Your task to perform on an android device: Show me popular videos on Youtube Image 0: 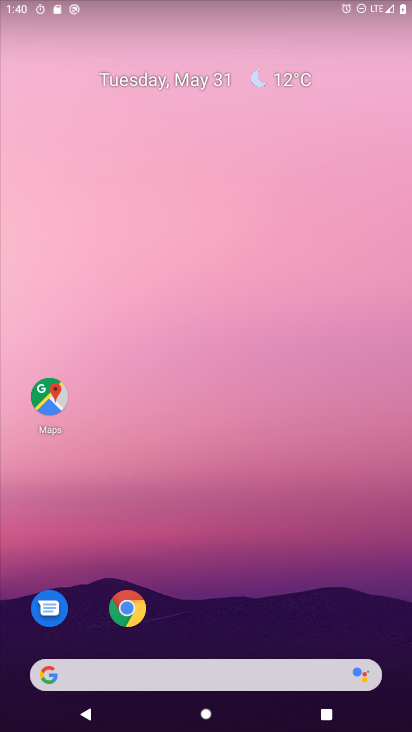
Step 0: drag from (312, 644) to (295, 2)
Your task to perform on an android device: Show me popular videos on Youtube Image 1: 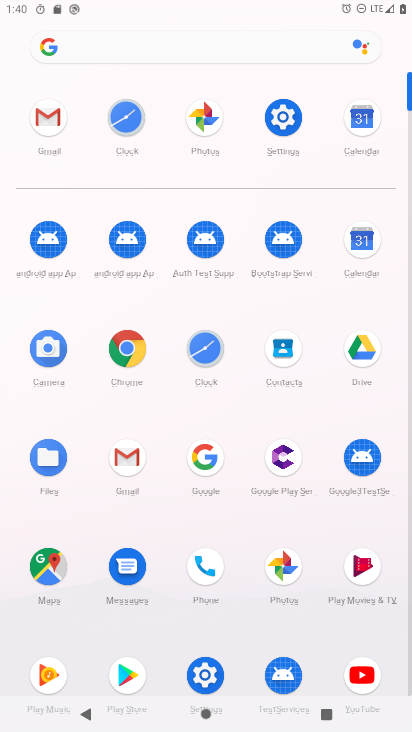
Step 1: click (362, 670)
Your task to perform on an android device: Show me popular videos on Youtube Image 2: 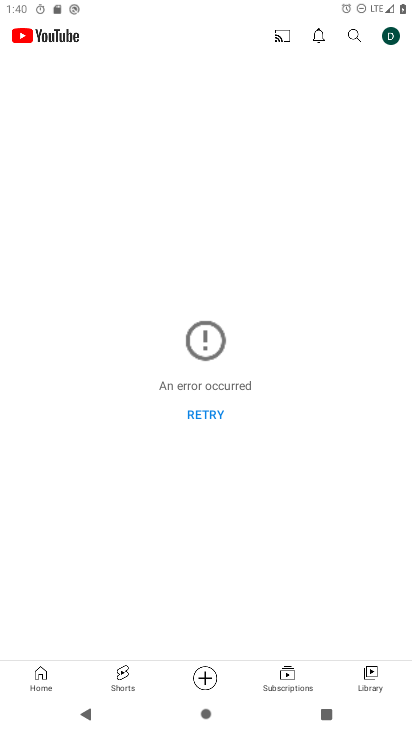
Step 2: click (197, 417)
Your task to perform on an android device: Show me popular videos on Youtube Image 3: 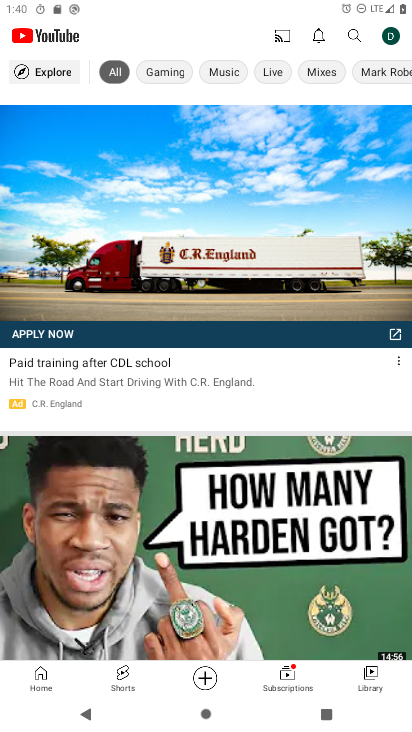
Step 3: click (32, 684)
Your task to perform on an android device: Show me popular videos on Youtube Image 4: 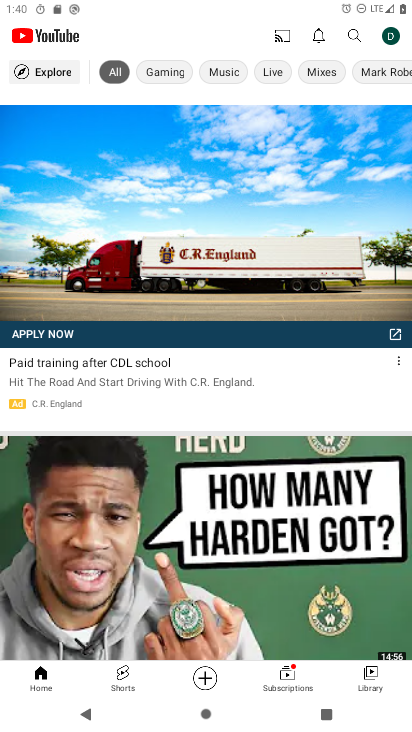
Step 4: task complete